Your task to perform on an android device: move a message to another label in the gmail app Image 0: 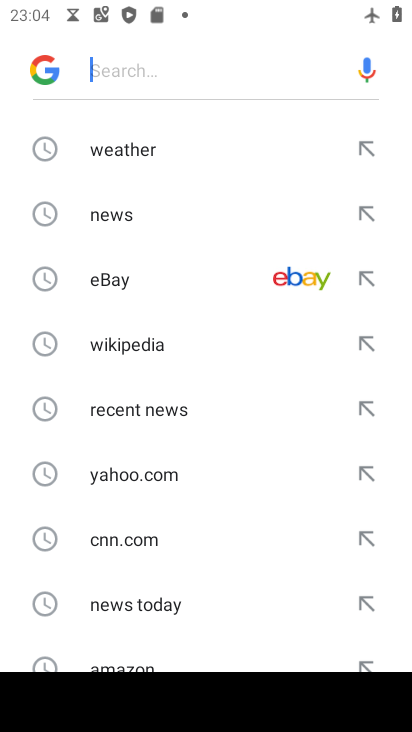
Step 0: press back button
Your task to perform on an android device: move a message to another label in the gmail app Image 1: 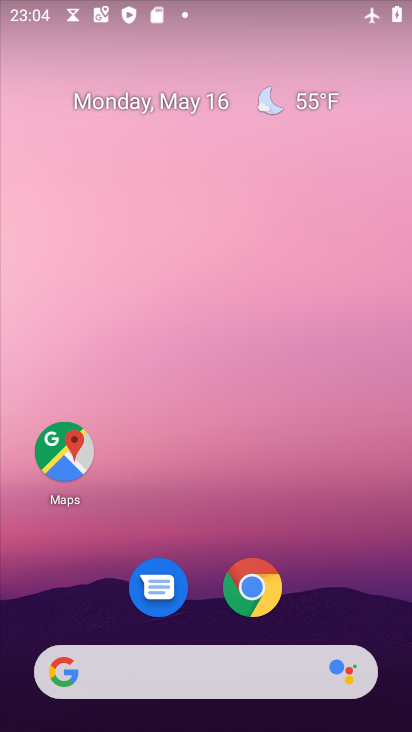
Step 1: drag from (348, 602) to (75, 25)
Your task to perform on an android device: move a message to another label in the gmail app Image 2: 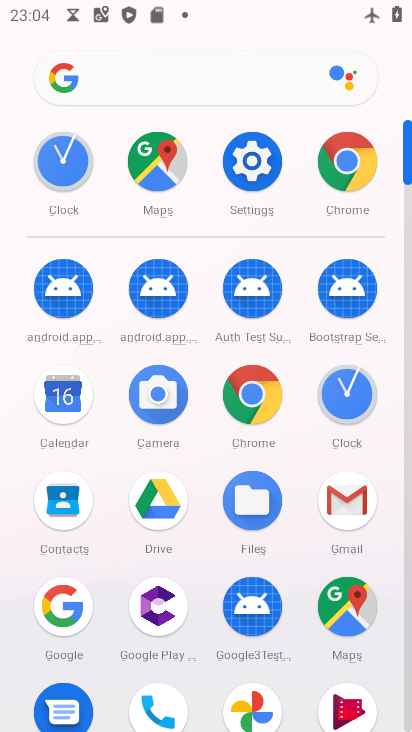
Step 2: drag from (20, 563) to (7, 209)
Your task to perform on an android device: move a message to another label in the gmail app Image 3: 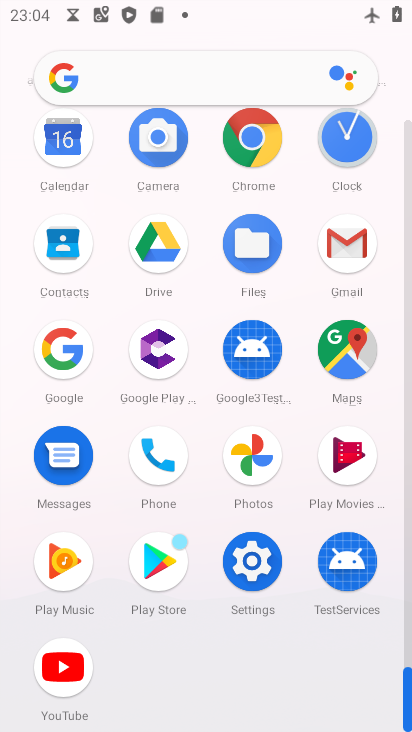
Step 3: click (346, 238)
Your task to perform on an android device: move a message to another label in the gmail app Image 4: 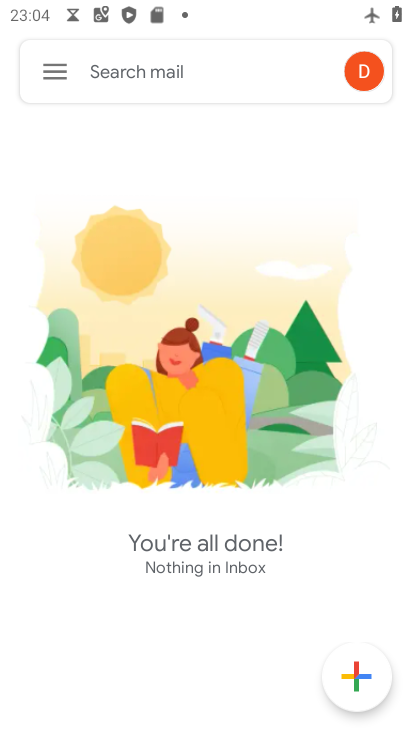
Step 4: click (42, 62)
Your task to perform on an android device: move a message to another label in the gmail app Image 5: 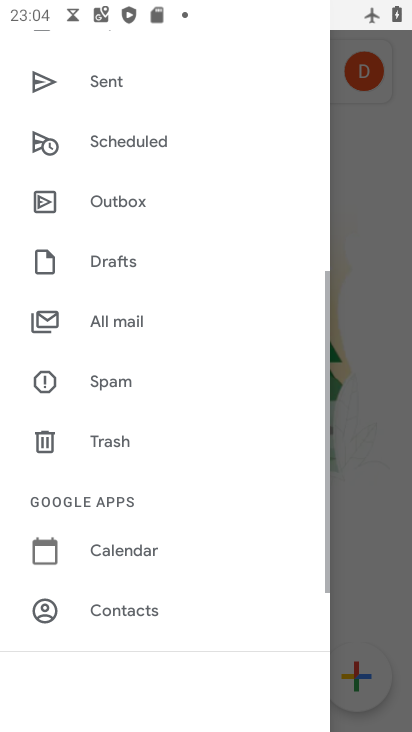
Step 5: drag from (255, 225) to (238, 539)
Your task to perform on an android device: move a message to another label in the gmail app Image 6: 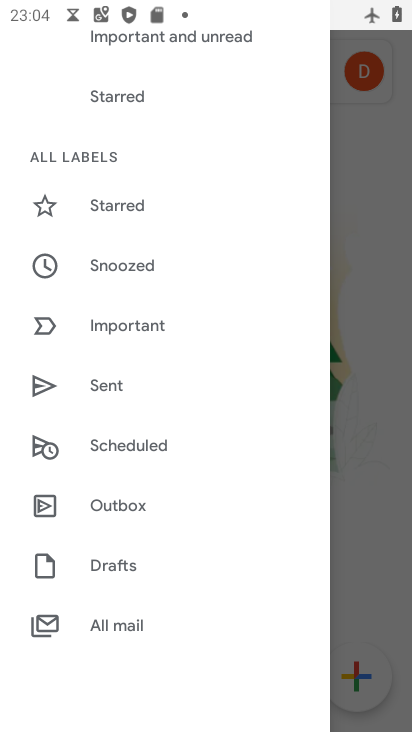
Step 6: drag from (205, 311) to (201, 498)
Your task to perform on an android device: move a message to another label in the gmail app Image 7: 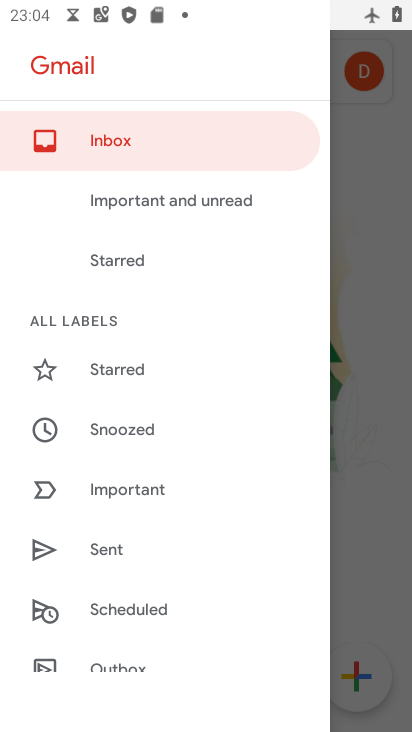
Step 7: drag from (197, 197) to (192, 472)
Your task to perform on an android device: move a message to another label in the gmail app Image 8: 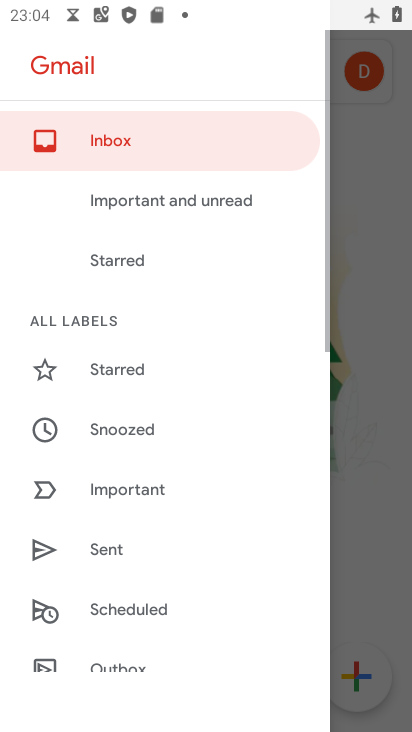
Step 8: click (138, 145)
Your task to perform on an android device: move a message to another label in the gmail app Image 9: 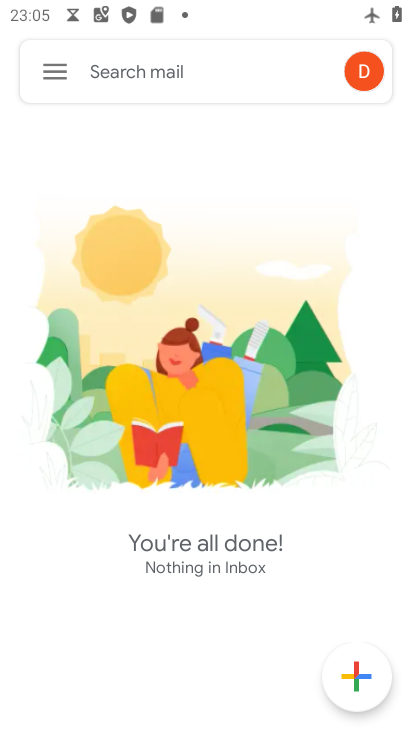
Step 9: click (61, 67)
Your task to perform on an android device: move a message to another label in the gmail app Image 10: 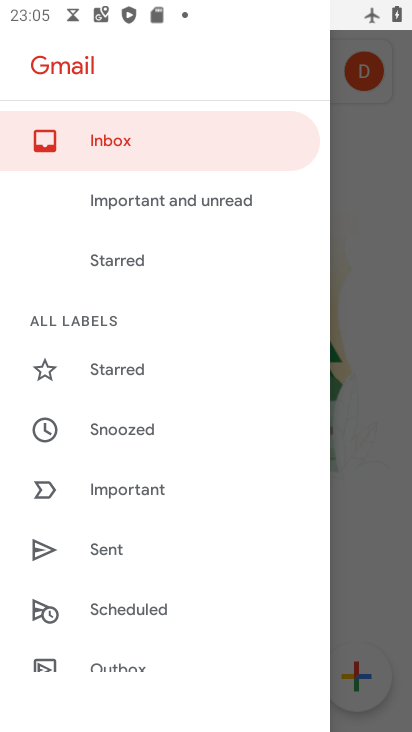
Step 10: click (176, 205)
Your task to perform on an android device: move a message to another label in the gmail app Image 11: 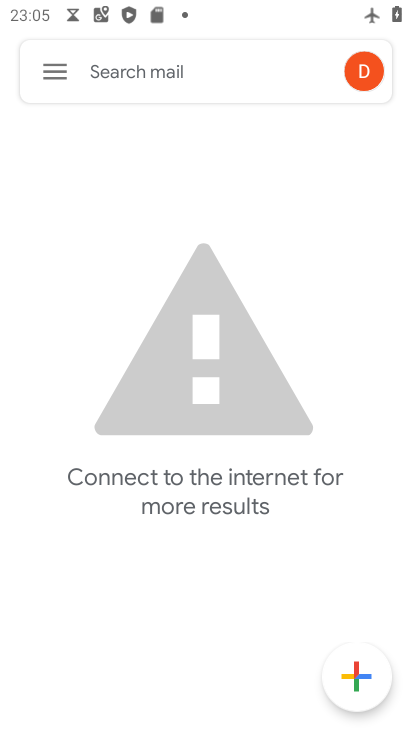
Step 11: click (63, 67)
Your task to perform on an android device: move a message to another label in the gmail app Image 12: 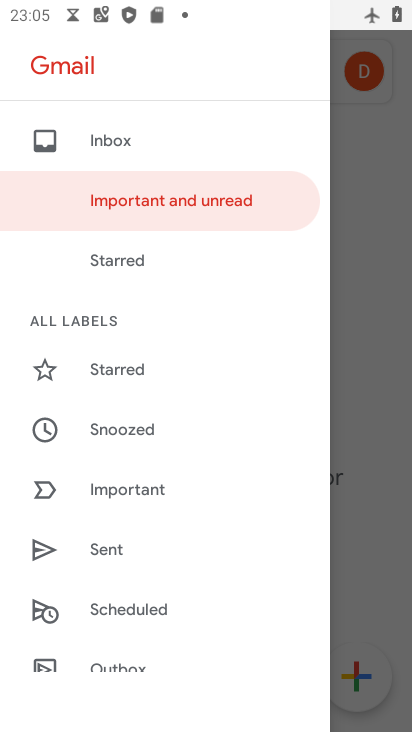
Step 12: drag from (156, 623) to (178, 235)
Your task to perform on an android device: move a message to another label in the gmail app Image 13: 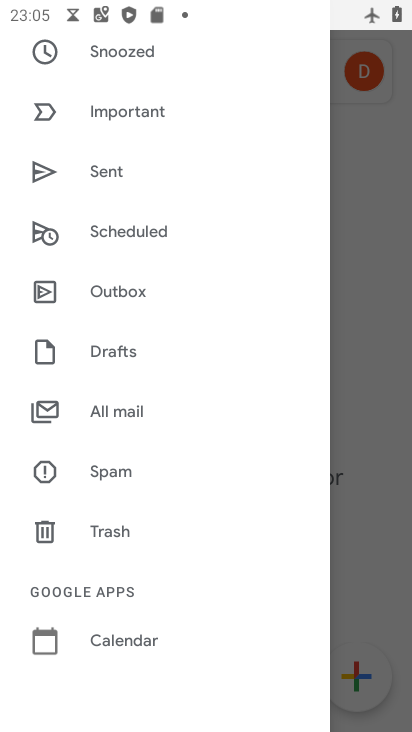
Step 13: click (146, 413)
Your task to perform on an android device: move a message to another label in the gmail app Image 14: 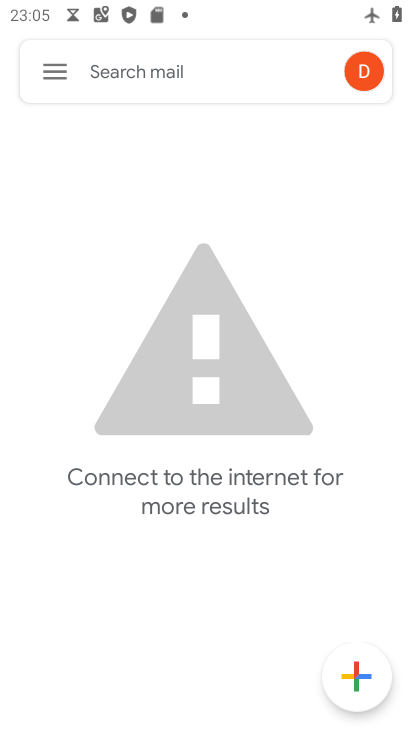
Step 14: click (67, 72)
Your task to perform on an android device: move a message to another label in the gmail app Image 15: 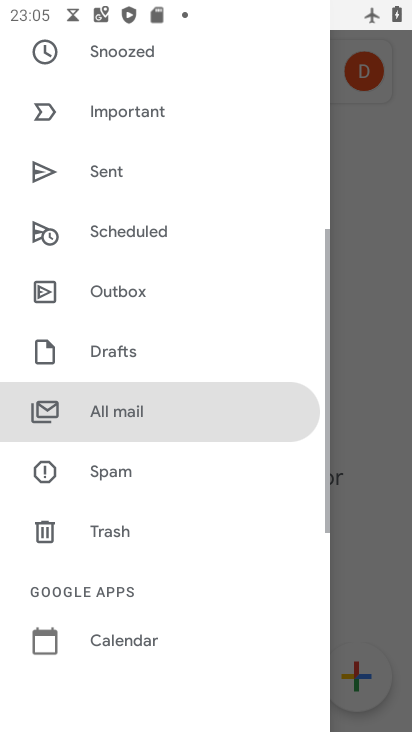
Step 15: drag from (247, 158) to (244, 578)
Your task to perform on an android device: move a message to another label in the gmail app Image 16: 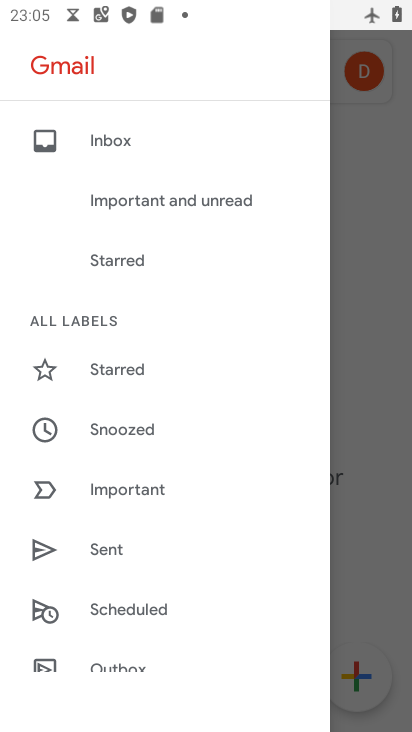
Step 16: drag from (254, 162) to (262, 567)
Your task to perform on an android device: move a message to another label in the gmail app Image 17: 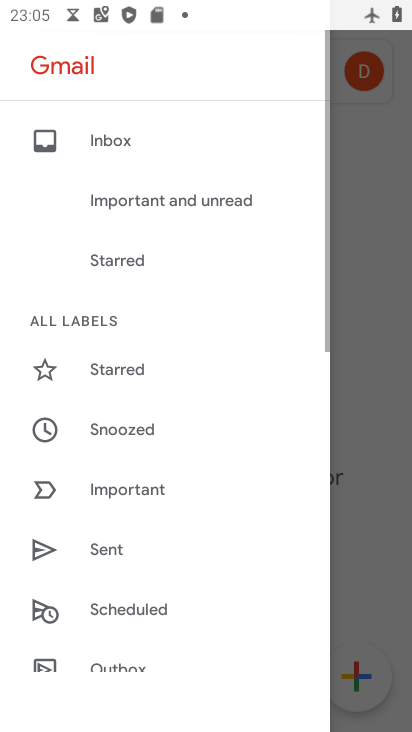
Step 17: click (150, 135)
Your task to perform on an android device: move a message to another label in the gmail app Image 18: 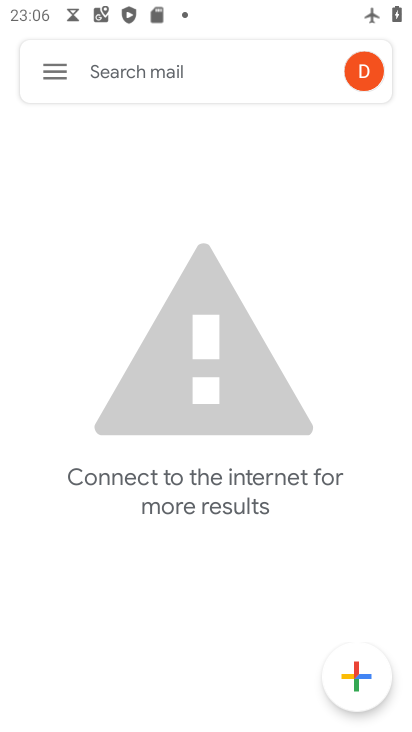
Step 18: task complete